Your task to perform on an android device: Open Maps and search for coffee Image 0: 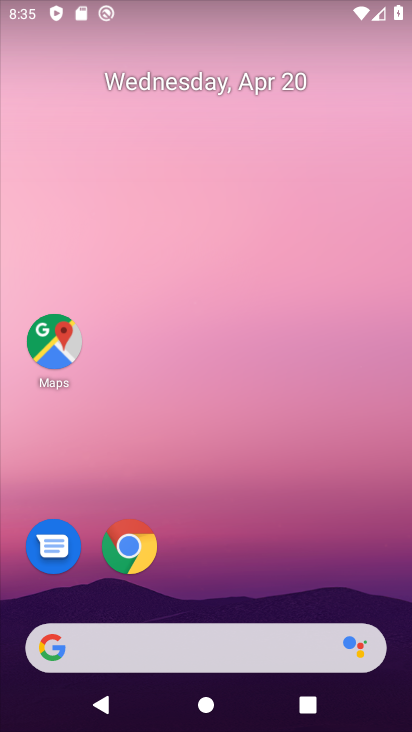
Step 0: drag from (310, 533) to (266, 29)
Your task to perform on an android device: Open Maps and search for coffee Image 1: 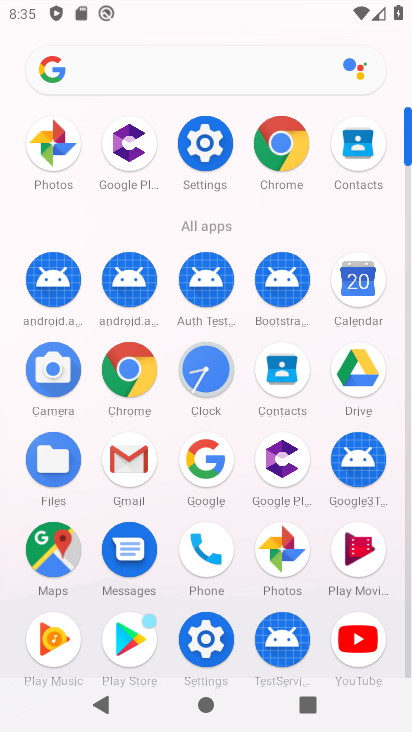
Step 1: drag from (154, 233) to (212, 108)
Your task to perform on an android device: Open Maps and search for coffee Image 2: 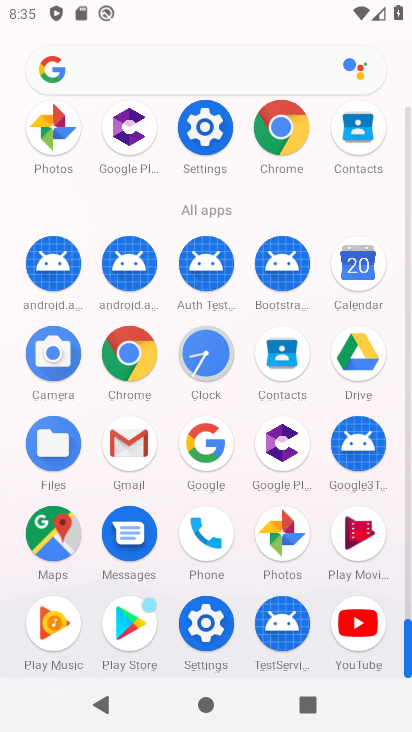
Step 2: click (56, 551)
Your task to perform on an android device: Open Maps and search for coffee Image 3: 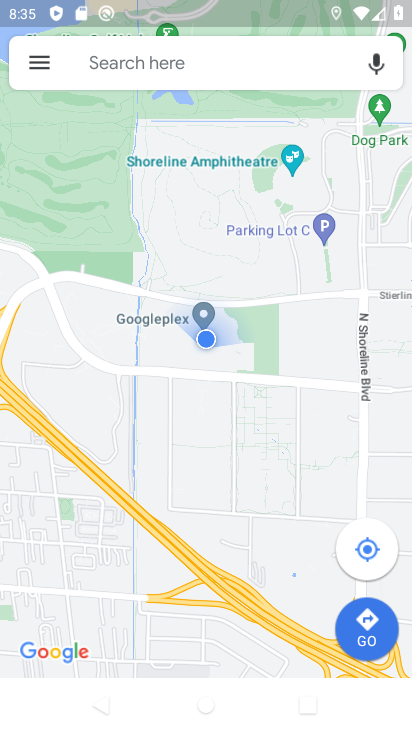
Step 3: click (164, 61)
Your task to perform on an android device: Open Maps and search for coffee Image 4: 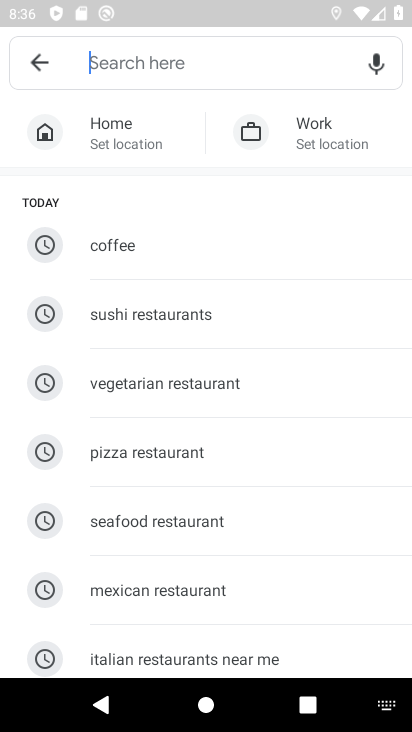
Step 4: type "coffee"
Your task to perform on an android device: Open Maps and search for coffee Image 5: 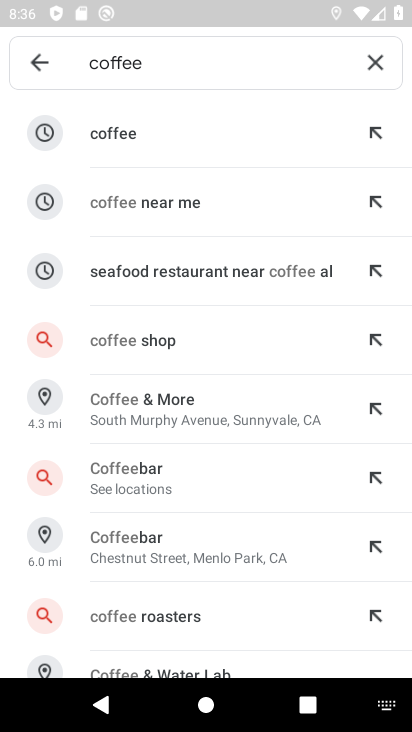
Step 5: click (136, 117)
Your task to perform on an android device: Open Maps and search for coffee Image 6: 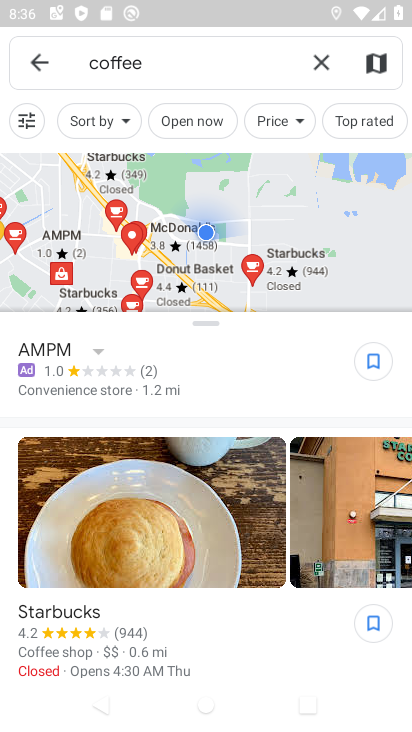
Step 6: task complete